Your task to perform on an android device: turn on sleep mode Image 0: 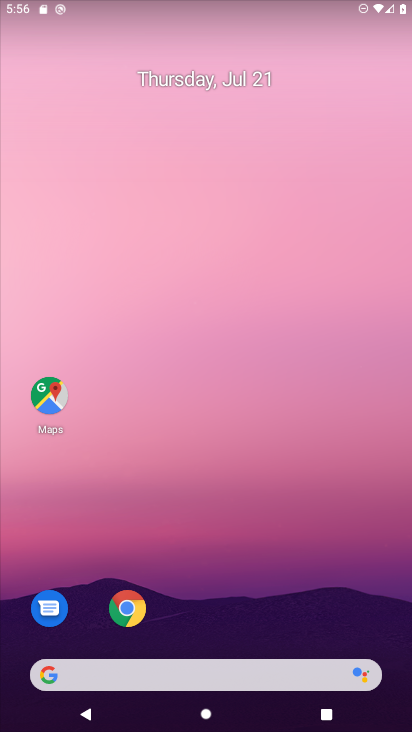
Step 0: drag from (237, 667) to (276, 171)
Your task to perform on an android device: turn on sleep mode Image 1: 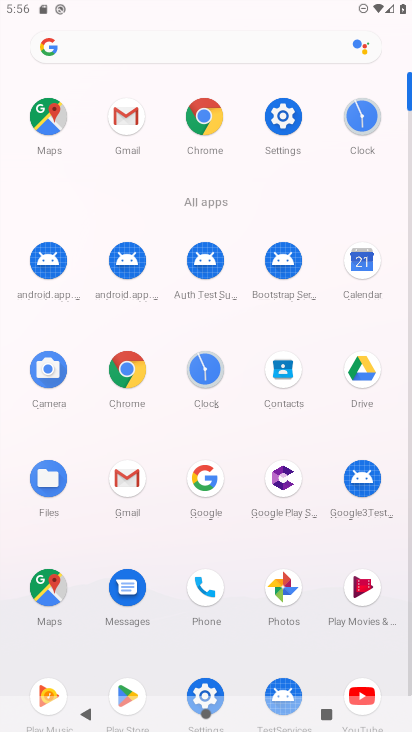
Step 1: click (283, 114)
Your task to perform on an android device: turn on sleep mode Image 2: 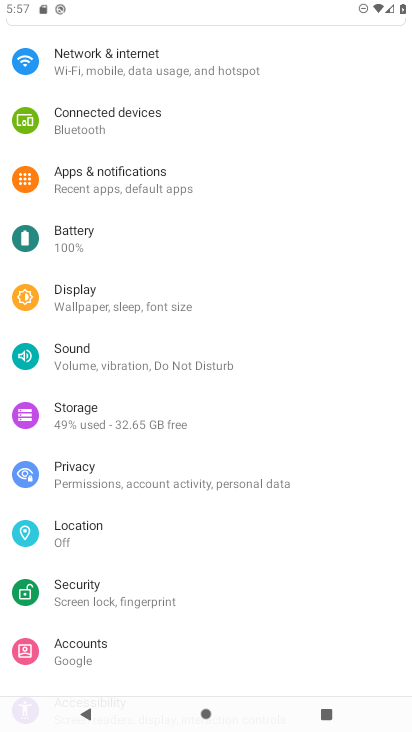
Step 2: click (120, 304)
Your task to perform on an android device: turn on sleep mode Image 3: 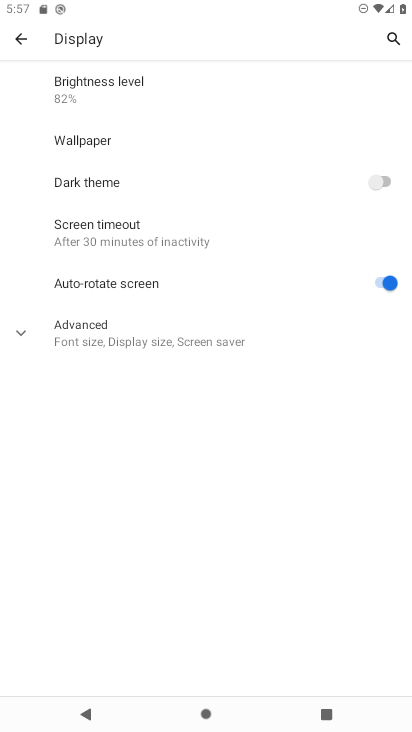
Step 3: click (135, 239)
Your task to perform on an android device: turn on sleep mode Image 4: 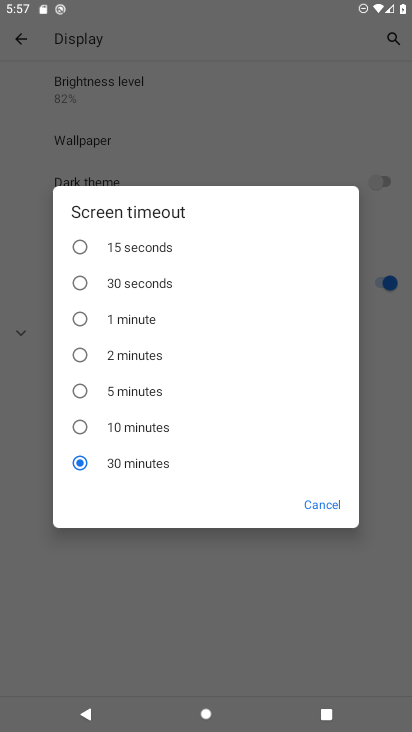
Step 4: click (330, 505)
Your task to perform on an android device: turn on sleep mode Image 5: 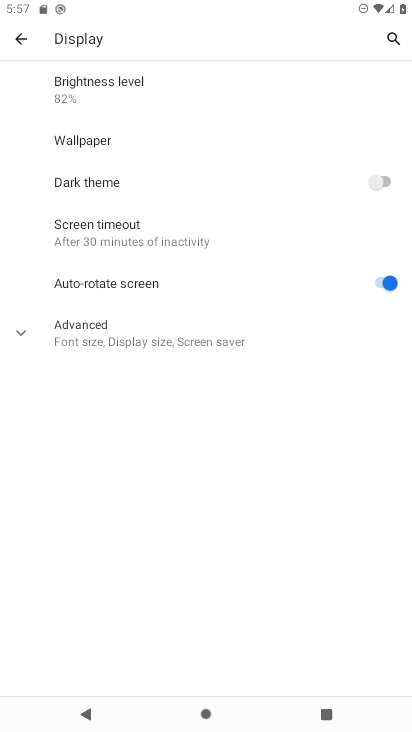
Step 5: click (115, 335)
Your task to perform on an android device: turn on sleep mode Image 6: 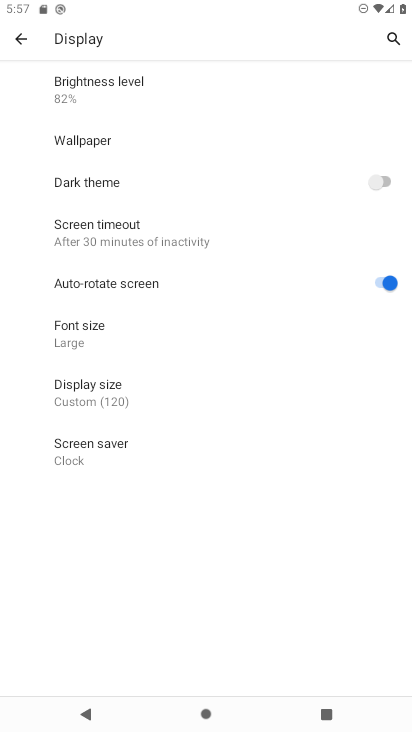
Step 6: click (87, 458)
Your task to perform on an android device: turn on sleep mode Image 7: 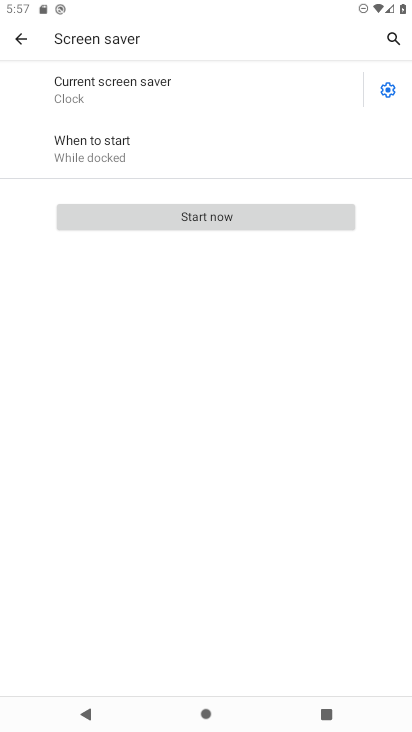
Step 7: task complete